Your task to perform on an android device: Open location settings Image 0: 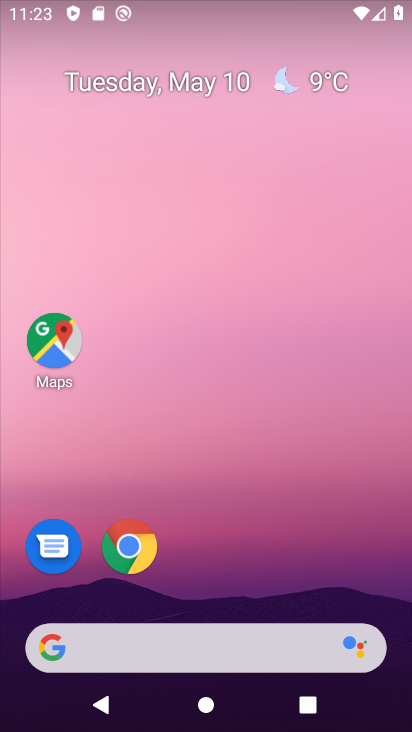
Step 0: drag from (205, 576) to (195, 155)
Your task to perform on an android device: Open location settings Image 1: 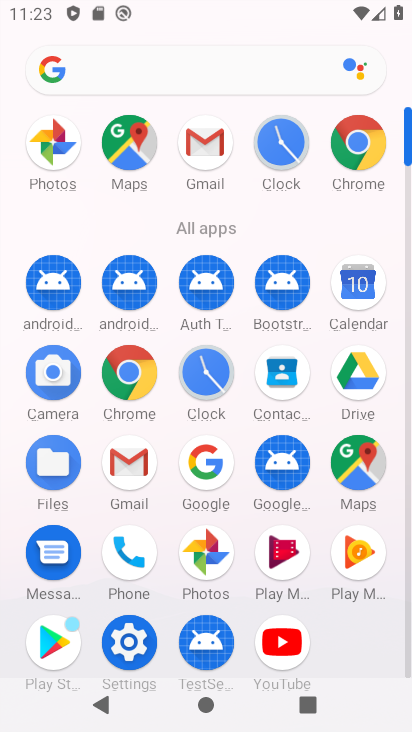
Step 1: click (138, 626)
Your task to perform on an android device: Open location settings Image 2: 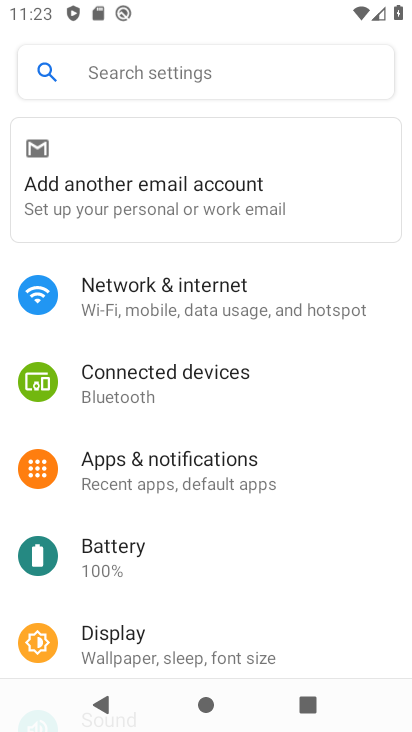
Step 2: drag from (170, 596) to (170, 275)
Your task to perform on an android device: Open location settings Image 3: 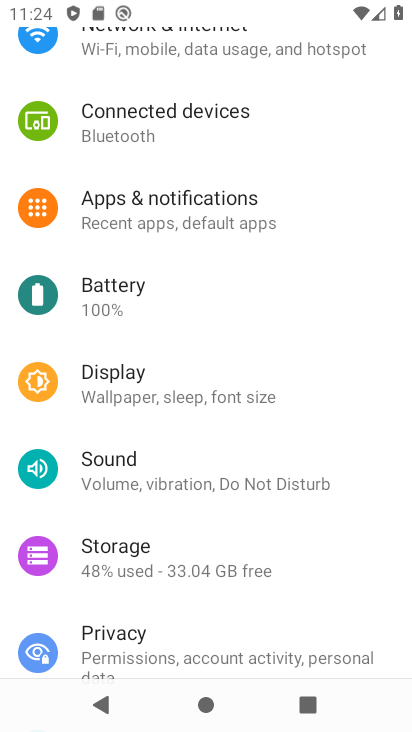
Step 3: drag from (161, 616) to (184, 325)
Your task to perform on an android device: Open location settings Image 4: 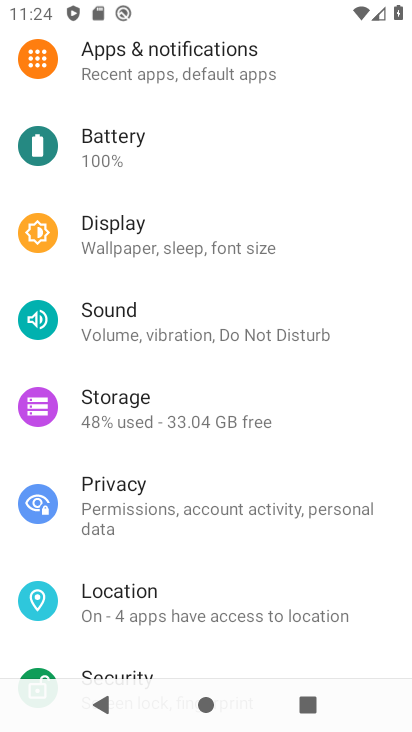
Step 4: click (146, 606)
Your task to perform on an android device: Open location settings Image 5: 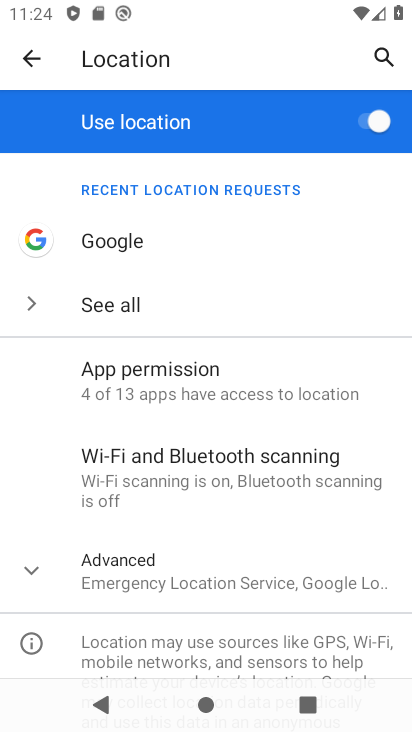
Step 5: task complete